Your task to perform on an android device: set default search engine in the chrome app Image 0: 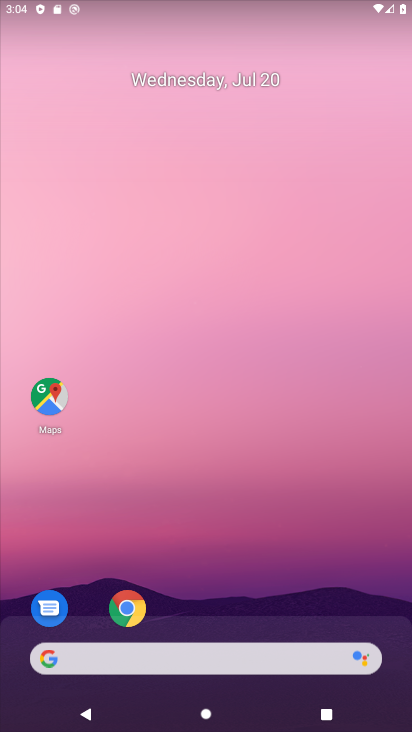
Step 0: click (131, 607)
Your task to perform on an android device: set default search engine in the chrome app Image 1: 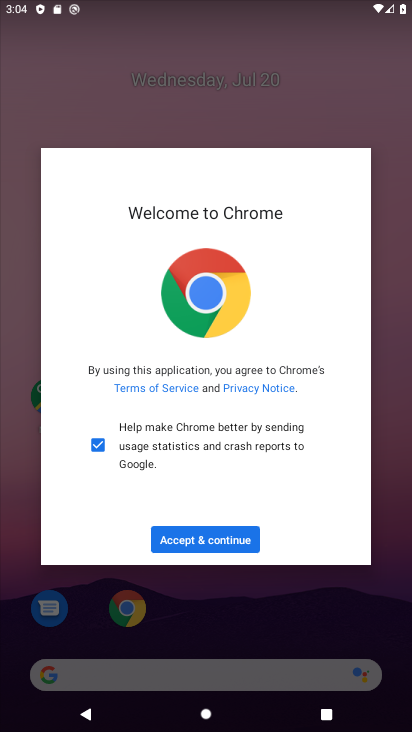
Step 1: click (203, 540)
Your task to perform on an android device: set default search engine in the chrome app Image 2: 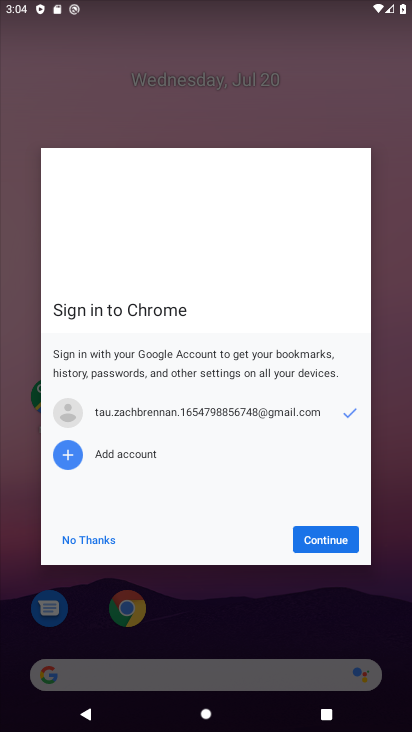
Step 2: click (330, 534)
Your task to perform on an android device: set default search engine in the chrome app Image 3: 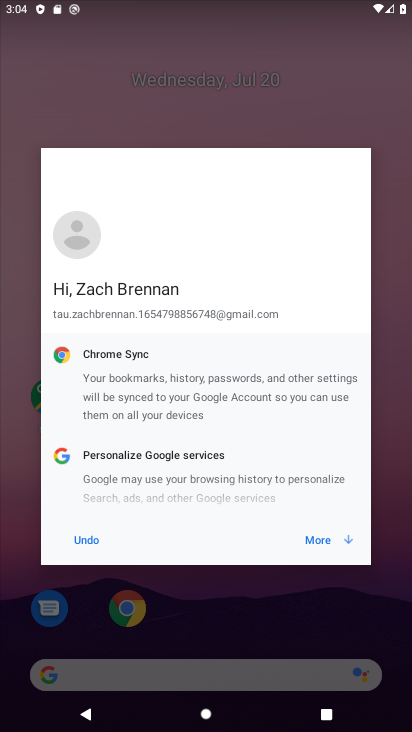
Step 3: click (330, 534)
Your task to perform on an android device: set default search engine in the chrome app Image 4: 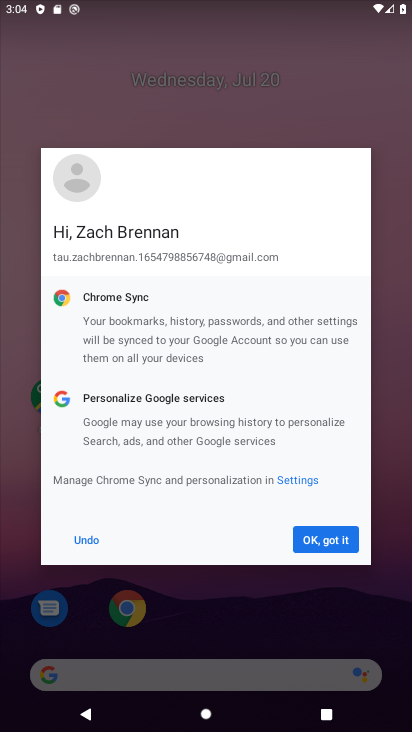
Step 4: click (330, 534)
Your task to perform on an android device: set default search engine in the chrome app Image 5: 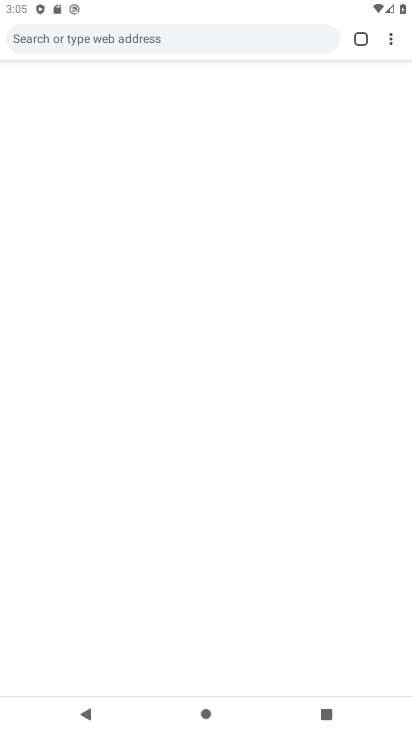
Step 5: click (394, 36)
Your task to perform on an android device: set default search engine in the chrome app Image 6: 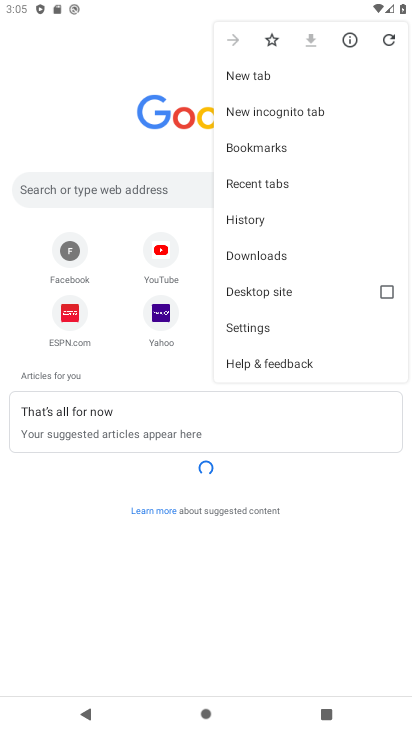
Step 6: click (256, 333)
Your task to perform on an android device: set default search engine in the chrome app Image 7: 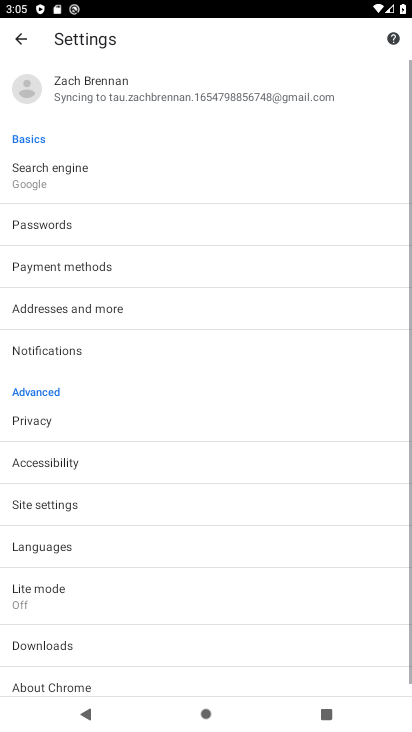
Step 7: click (80, 163)
Your task to perform on an android device: set default search engine in the chrome app Image 8: 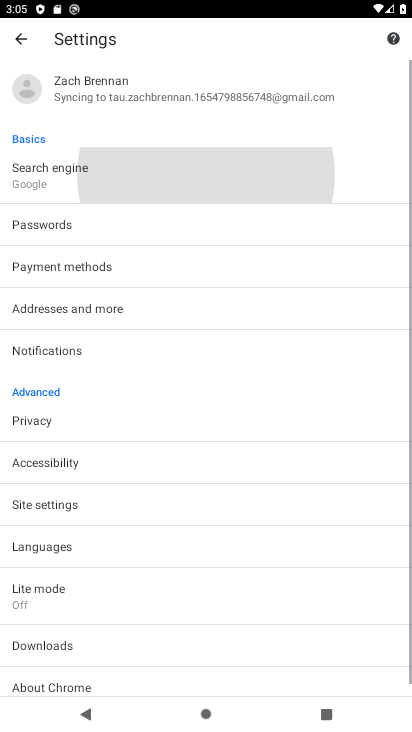
Step 8: click (80, 163)
Your task to perform on an android device: set default search engine in the chrome app Image 9: 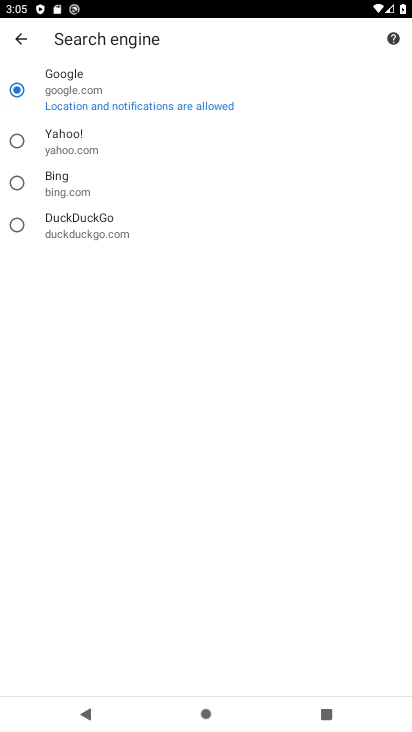
Step 9: click (84, 149)
Your task to perform on an android device: set default search engine in the chrome app Image 10: 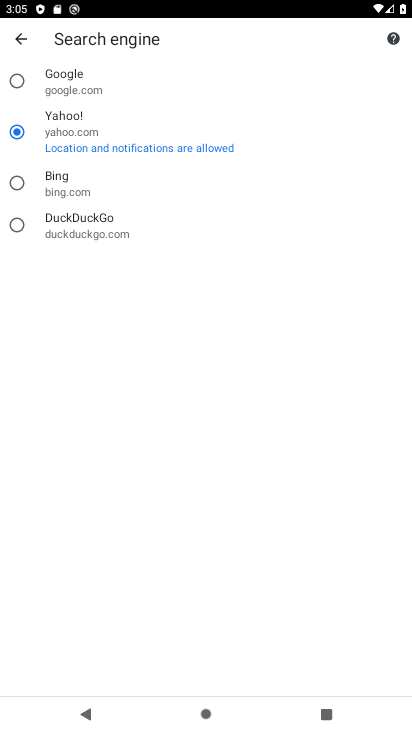
Step 10: task complete